Your task to perform on an android device: What's the weather like in Los Angeles? Image 0: 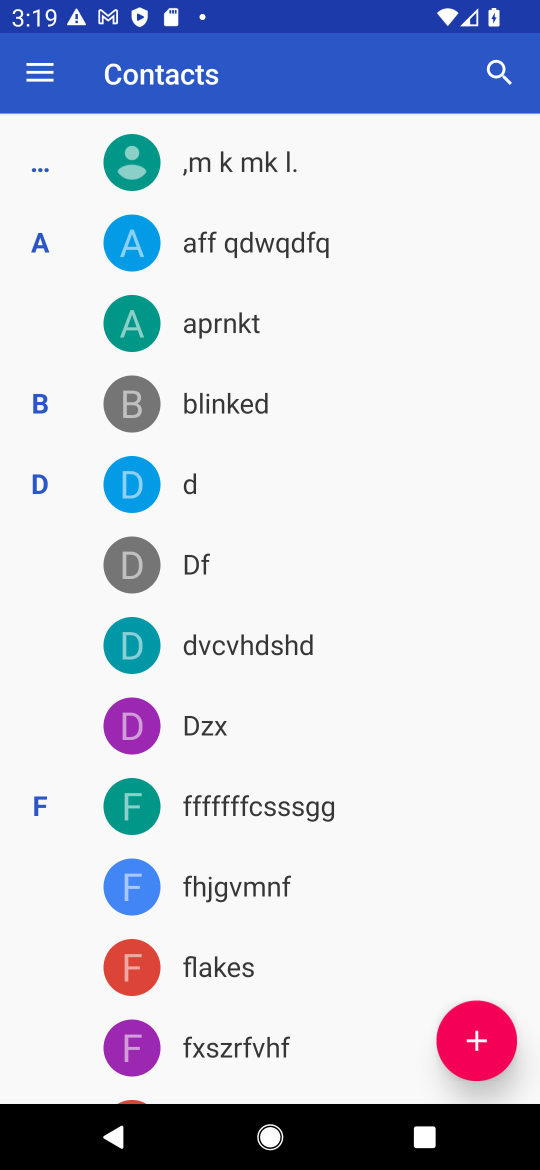
Step 0: press home button
Your task to perform on an android device: What's the weather like in Los Angeles? Image 1: 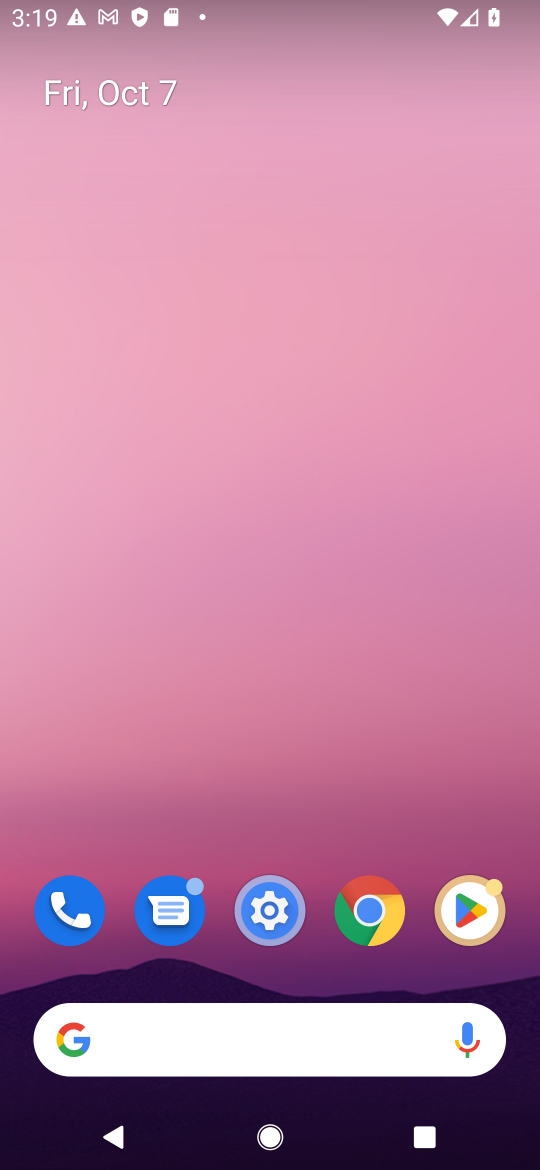
Step 1: click (239, 1035)
Your task to perform on an android device: What's the weather like in Los Angeles? Image 2: 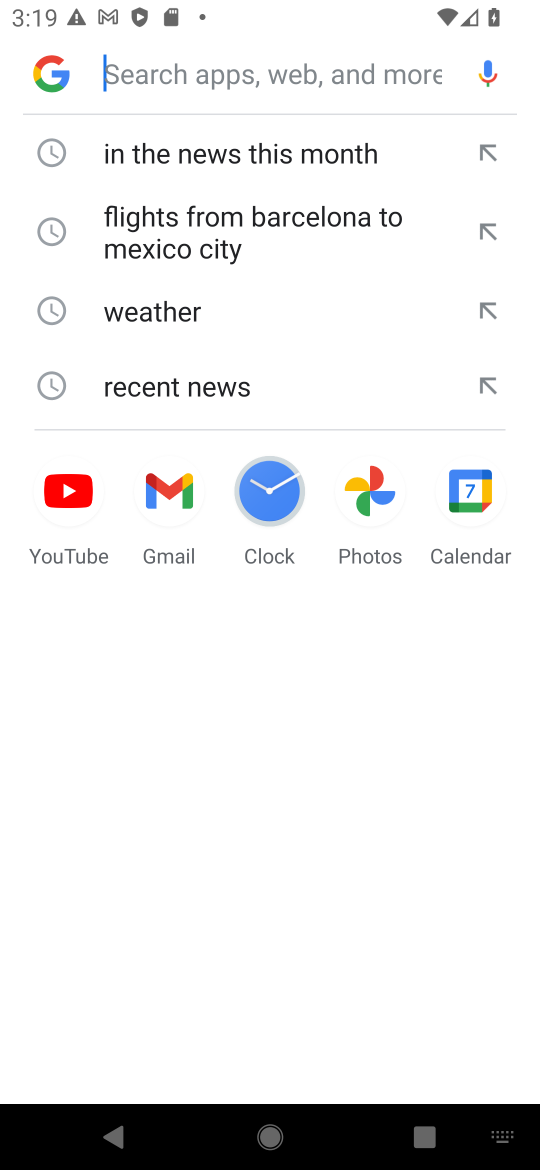
Step 2: type "the weather like in Los Angeles"
Your task to perform on an android device: What's the weather like in Los Angeles? Image 3: 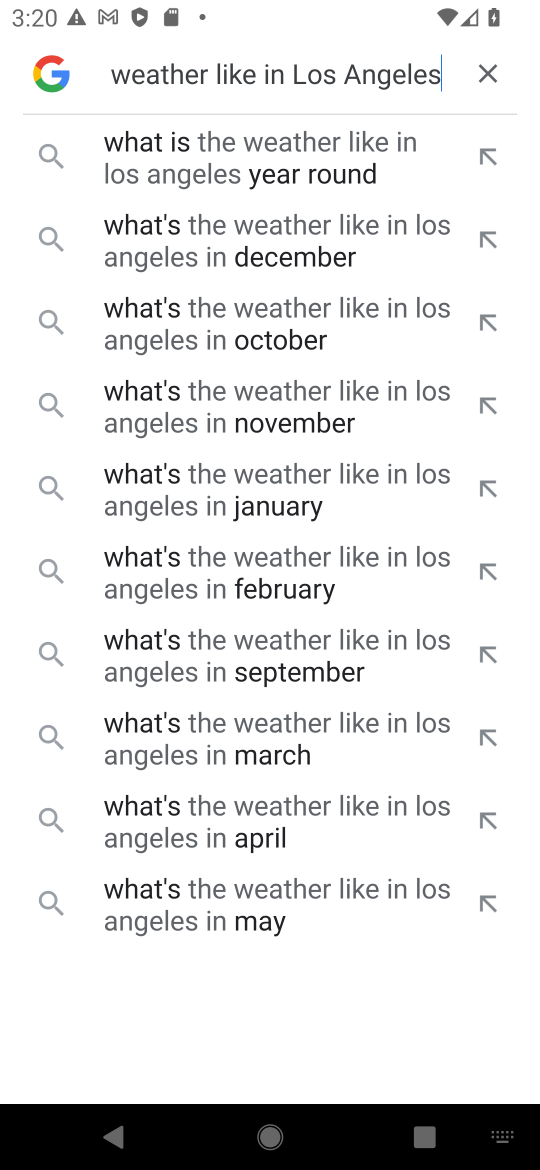
Step 3: click (242, 169)
Your task to perform on an android device: What's the weather like in Los Angeles? Image 4: 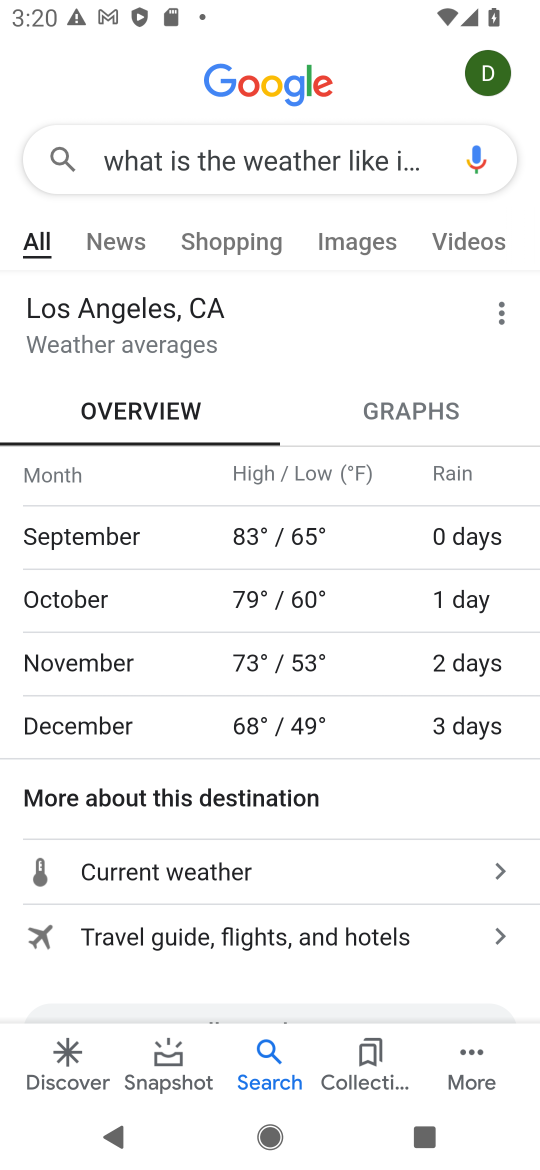
Step 4: task complete